Your task to perform on an android device: read, delete, or share a saved page in the chrome app Image 0: 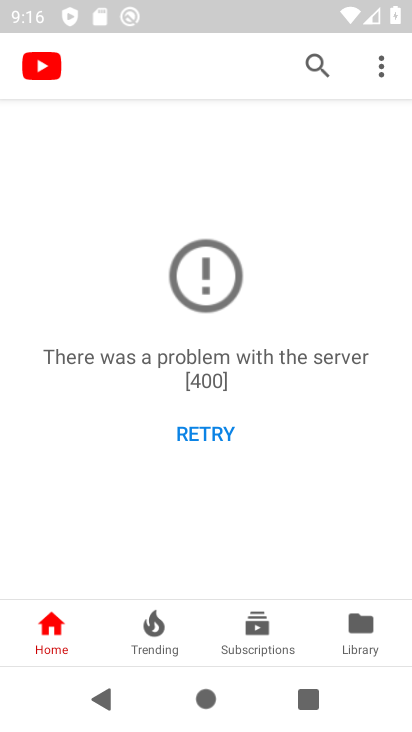
Step 0: press home button
Your task to perform on an android device: read, delete, or share a saved page in the chrome app Image 1: 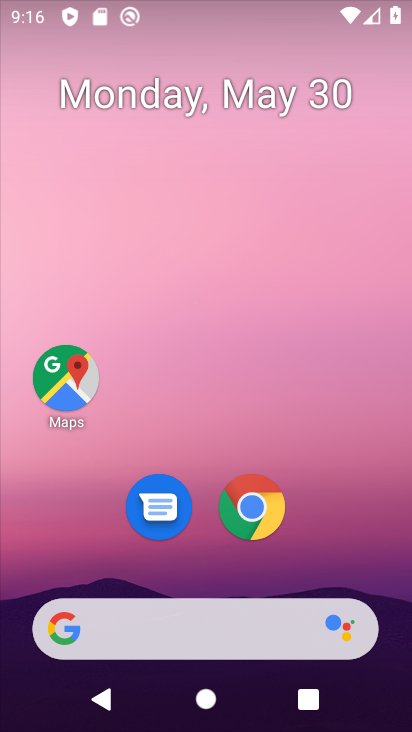
Step 1: click (248, 513)
Your task to perform on an android device: read, delete, or share a saved page in the chrome app Image 2: 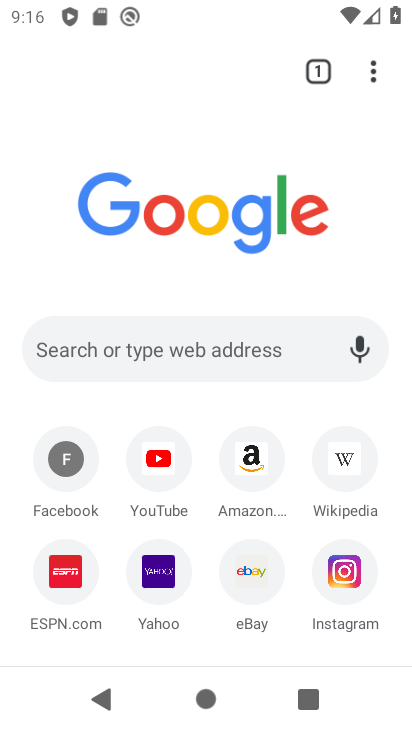
Step 2: click (380, 63)
Your task to perform on an android device: read, delete, or share a saved page in the chrome app Image 3: 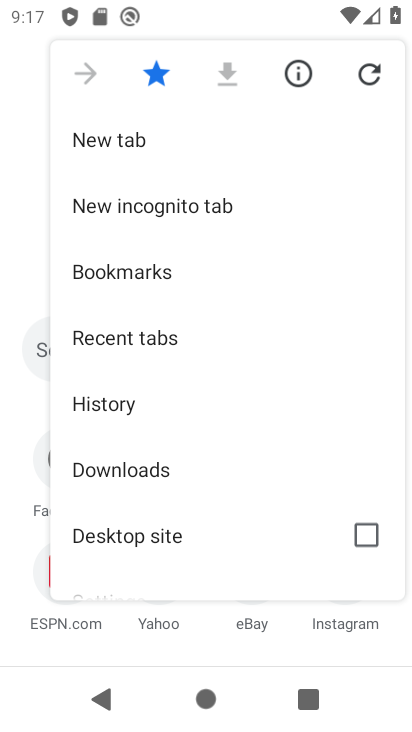
Step 3: click (116, 467)
Your task to perform on an android device: read, delete, or share a saved page in the chrome app Image 4: 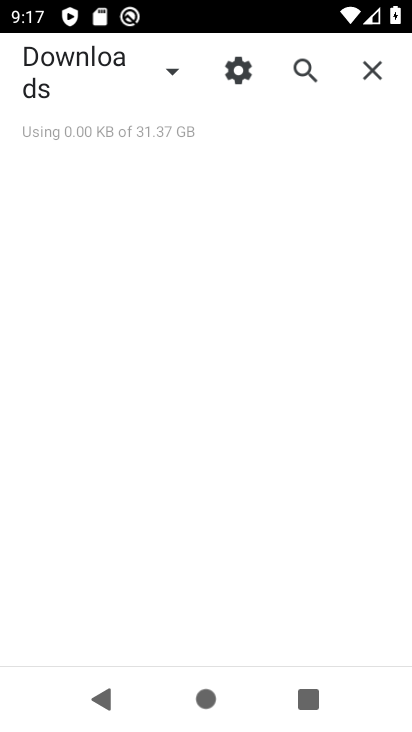
Step 4: click (164, 65)
Your task to perform on an android device: read, delete, or share a saved page in the chrome app Image 5: 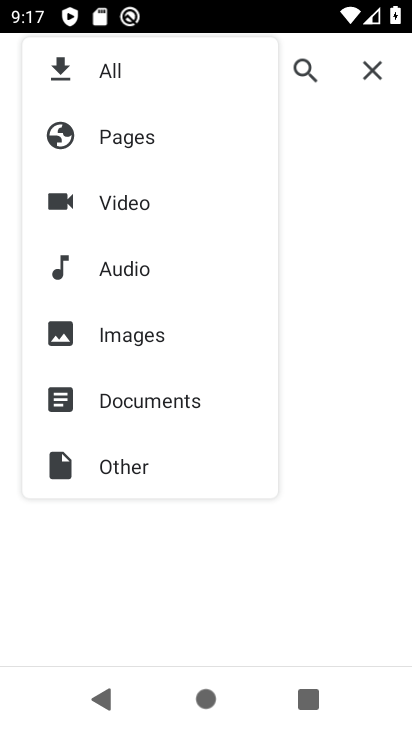
Step 5: click (120, 130)
Your task to perform on an android device: read, delete, or share a saved page in the chrome app Image 6: 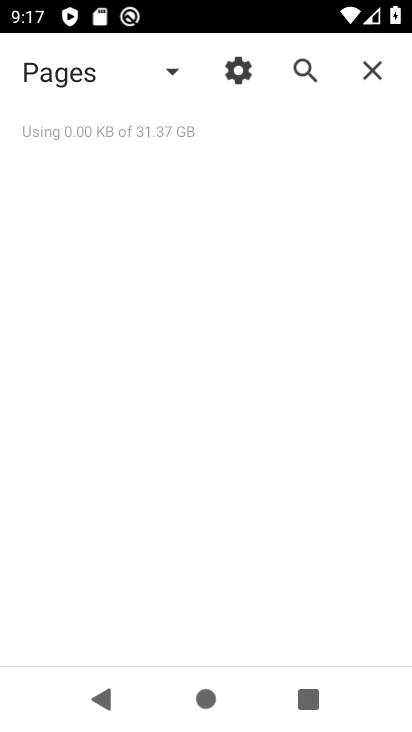
Step 6: task complete